Your task to perform on an android device: Go to Yahoo.com Image 0: 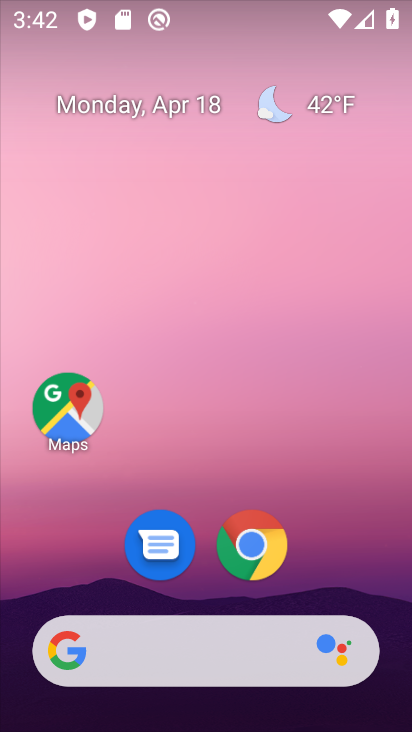
Step 0: drag from (309, 546) to (330, 93)
Your task to perform on an android device: Go to Yahoo.com Image 1: 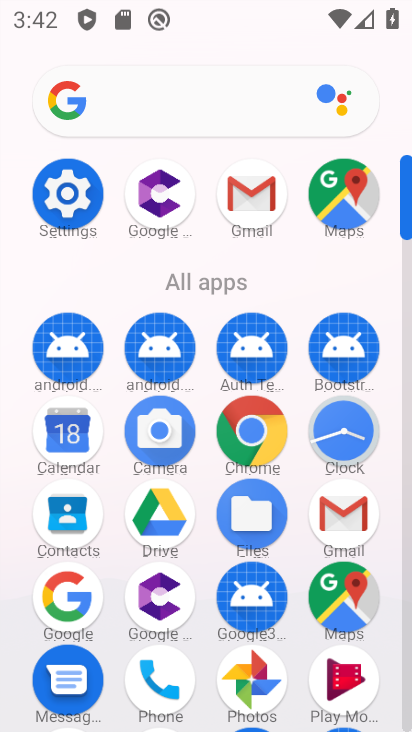
Step 1: click (265, 448)
Your task to perform on an android device: Go to Yahoo.com Image 2: 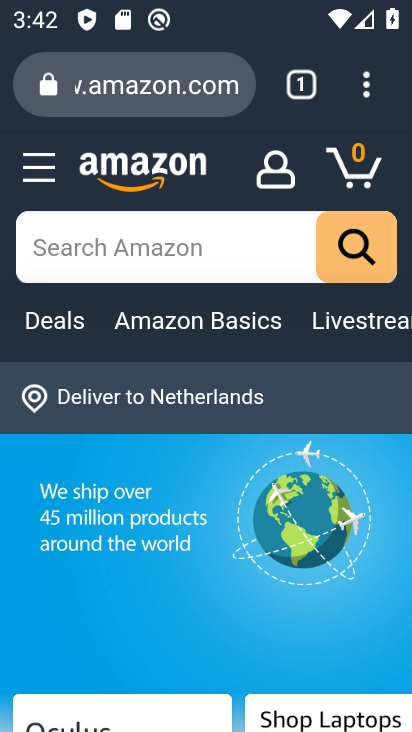
Step 2: press back button
Your task to perform on an android device: Go to Yahoo.com Image 3: 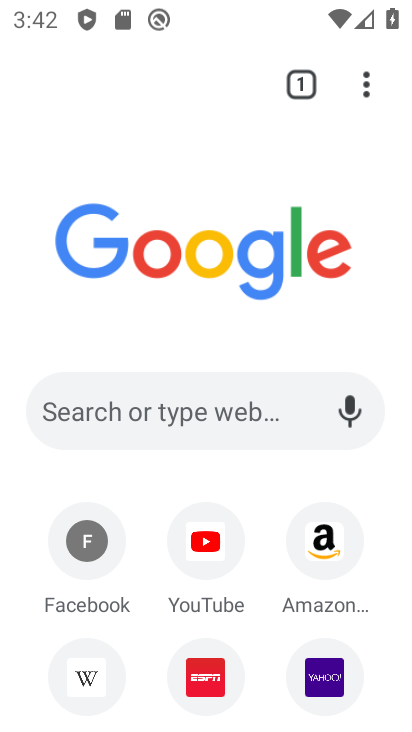
Step 3: drag from (387, 540) to (385, 247)
Your task to perform on an android device: Go to Yahoo.com Image 4: 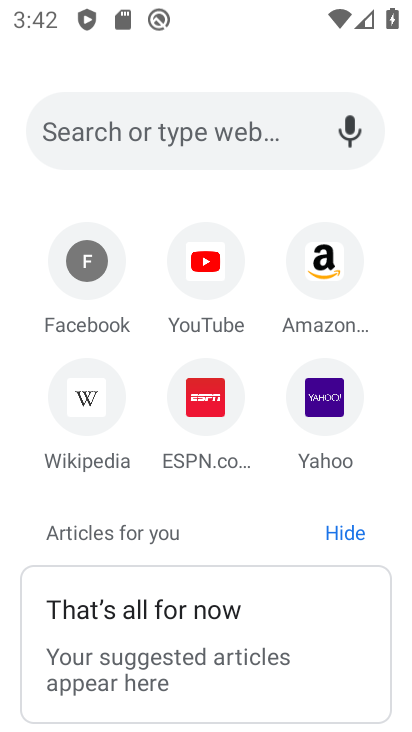
Step 4: click (316, 411)
Your task to perform on an android device: Go to Yahoo.com Image 5: 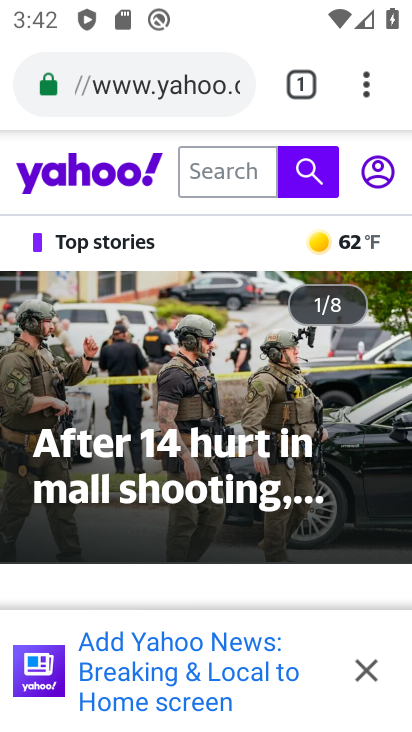
Step 5: task complete